Your task to perform on an android device: turn on data saver in the chrome app Image 0: 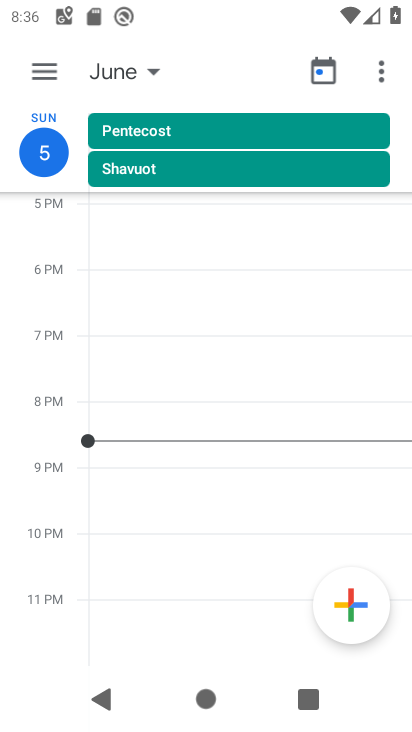
Step 0: press home button
Your task to perform on an android device: turn on data saver in the chrome app Image 1: 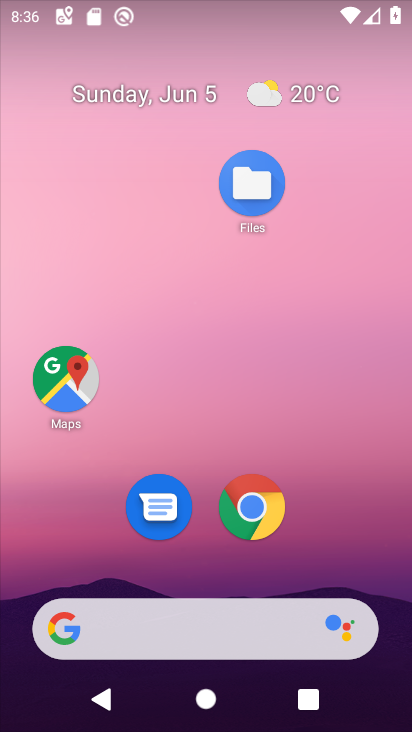
Step 1: click (267, 496)
Your task to perform on an android device: turn on data saver in the chrome app Image 2: 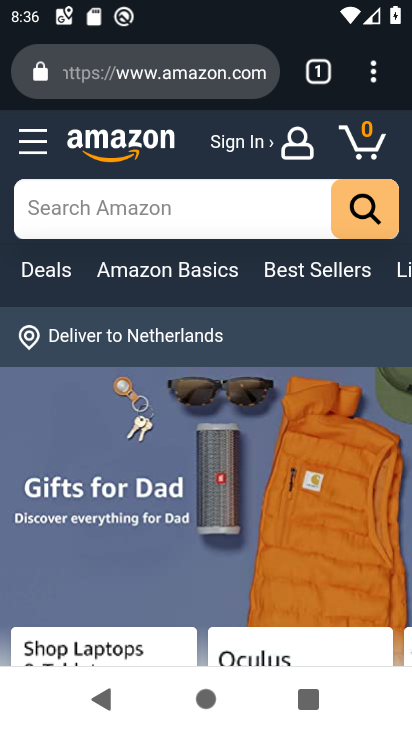
Step 2: click (377, 79)
Your task to perform on an android device: turn on data saver in the chrome app Image 3: 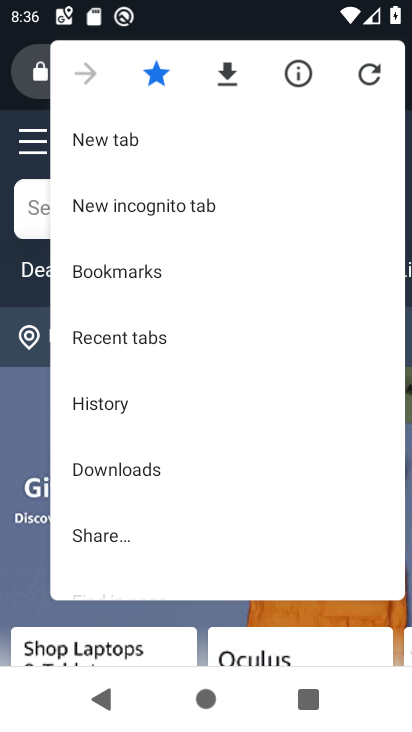
Step 3: drag from (200, 506) to (183, 108)
Your task to perform on an android device: turn on data saver in the chrome app Image 4: 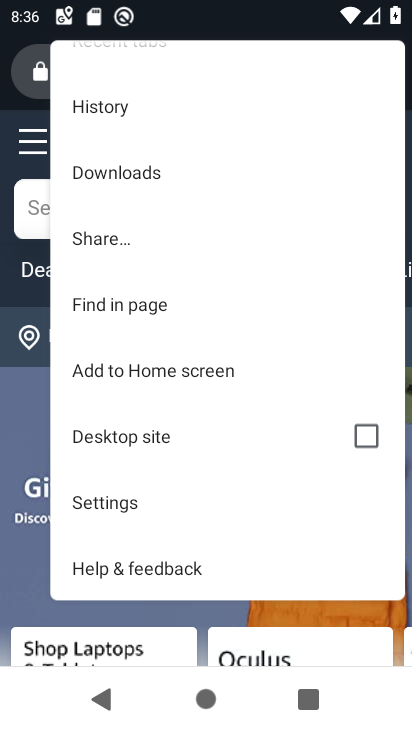
Step 4: click (109, 488)
Your task to perform on an android device: turn on data saver in the chrome app Image 5: 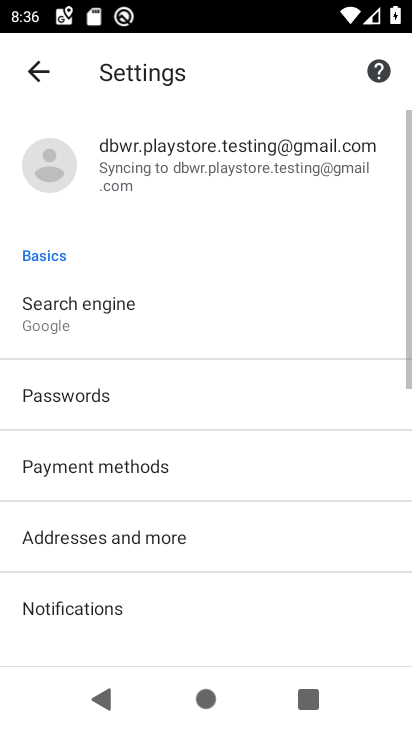
Step 5: drag from (109, 488) to (75, 168)
Your task to perform on an android device: turn on data saver in the chrome app Image 6: 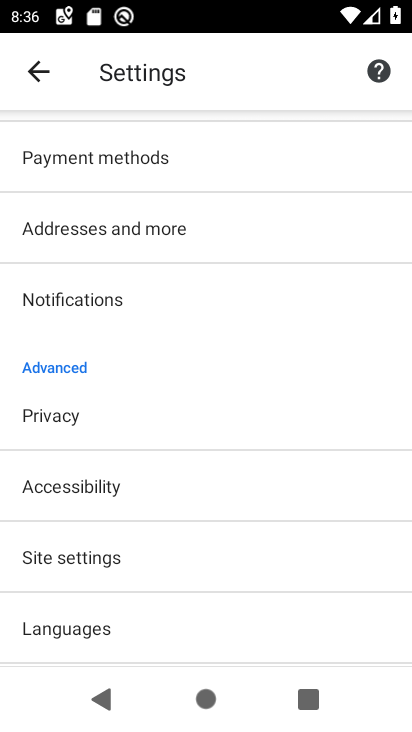
Step 6: drag from (115, 525) to (124, 224)
Your task to perform on an android device: turn on data saver in the chrome app Image 7: 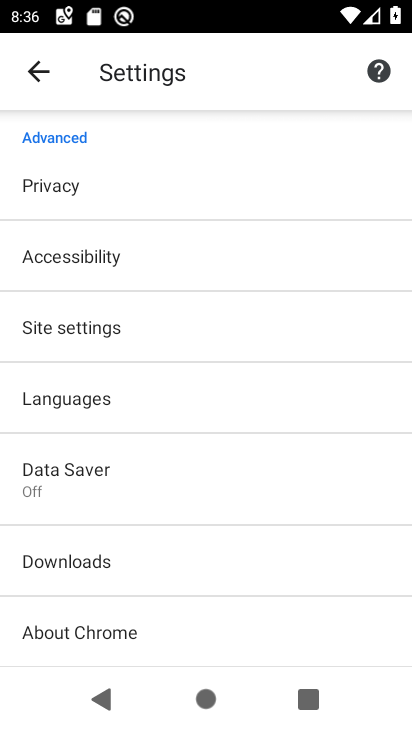
Step 7: click (40, 487)
Your task to perform on an android device: turn on data saver in the chrome app Image 8: 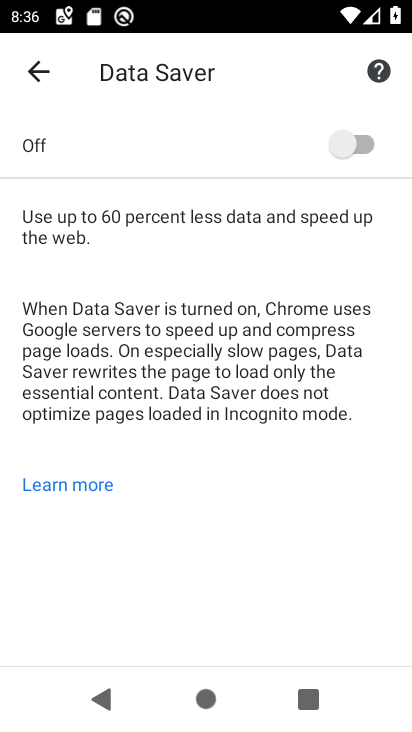
Step 8: click (347, 153)
Your task to perform on an android device: turn on data saver in the chrome app Image 9: 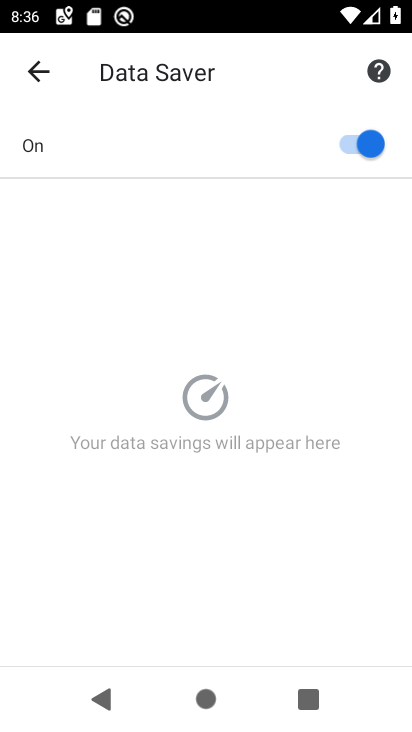
Step 9: task complete